Your task to perform on an android device: Check the news Image 0: 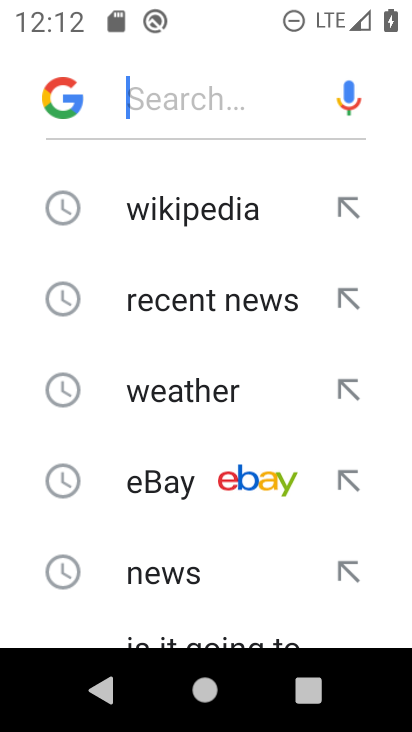
Step 0: press home button
Your task to perform on an android device: Check the news Image 1: 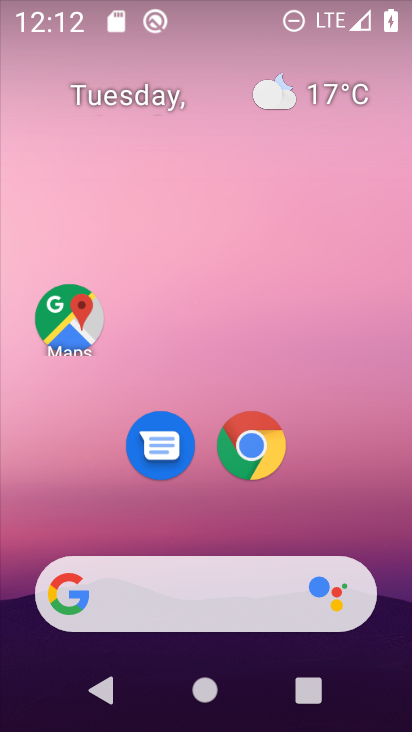
Step 1: task complete